Your task to perform on an android device: open a bookmark in the chrome app Image 0: 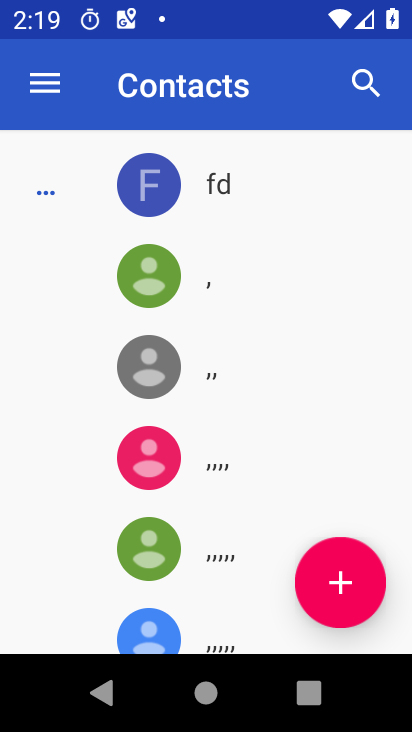
Step 0: press home button
Your task to perform on an android device: open a bookmark in the chrome app Image 1: 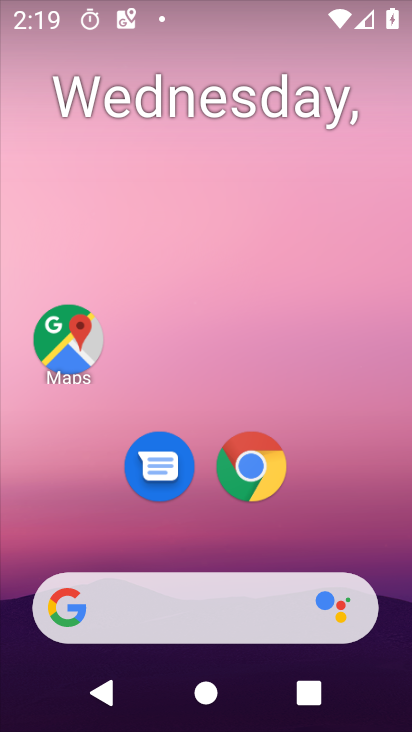
Step 1: click (246, 468)
Your task to perform on an android device: open a bookmark in the chrome app Image 2: 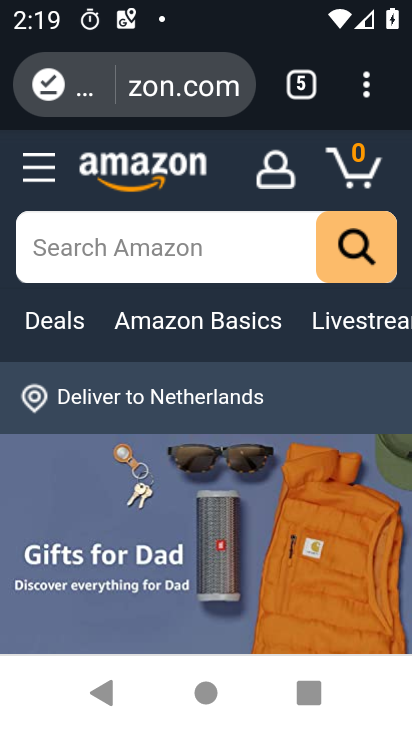
Step 2: click (369, 94)
Your task to perform on an android device: open a bookmark in the chrome app Image 3: 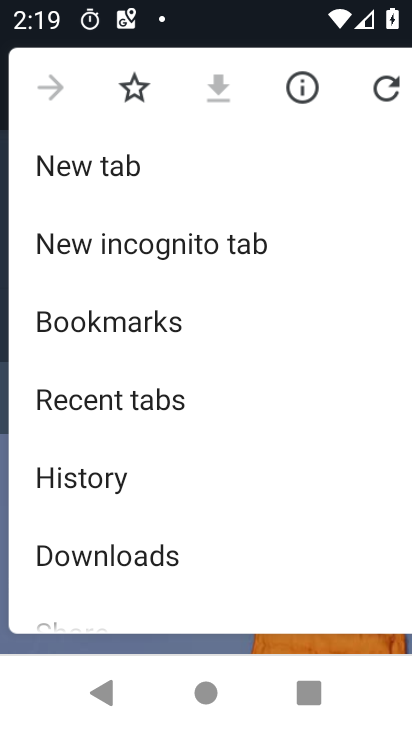
Step 3: click (147, 323)
Your task to perform on an android device: open a bookmark in the chrome app Image 4: 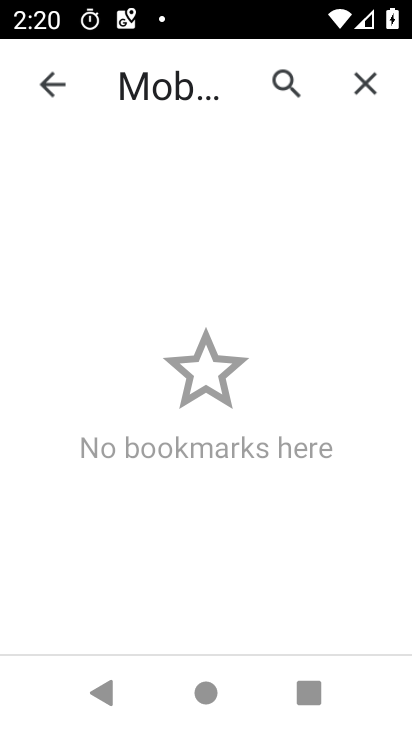
Step 4: task complete